Your task to perform on an android device: find which apps use the phone's location Image 0: 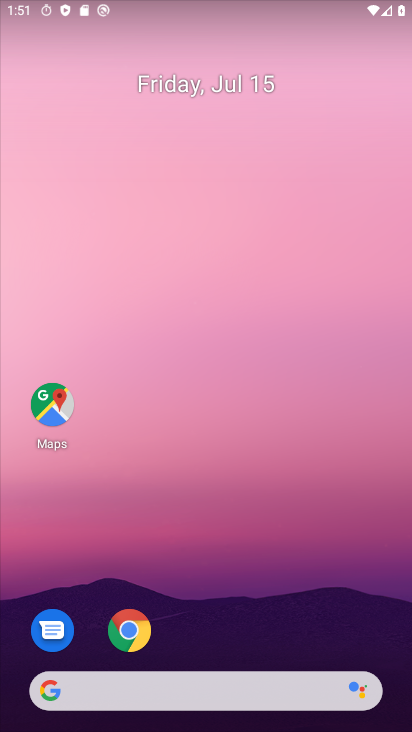
Step 0: drag from (200, 635) to (178, 124)
Your task to perform on an android device: find which apps use the phone's location Image 1: 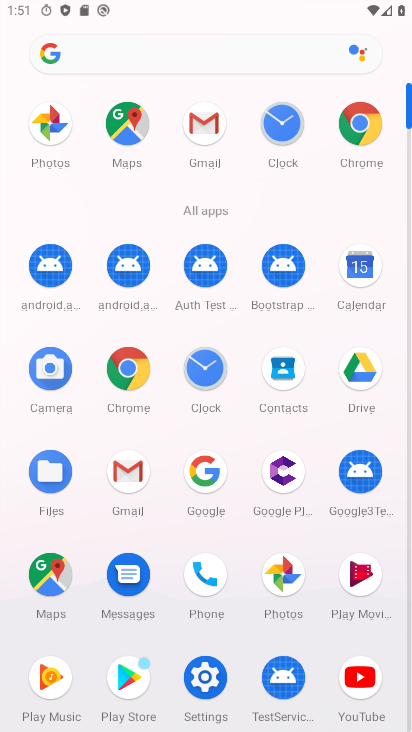
Step 1: click (211, 673)
Your task to perform on an android device: find which apps use the phone's location Image 2: 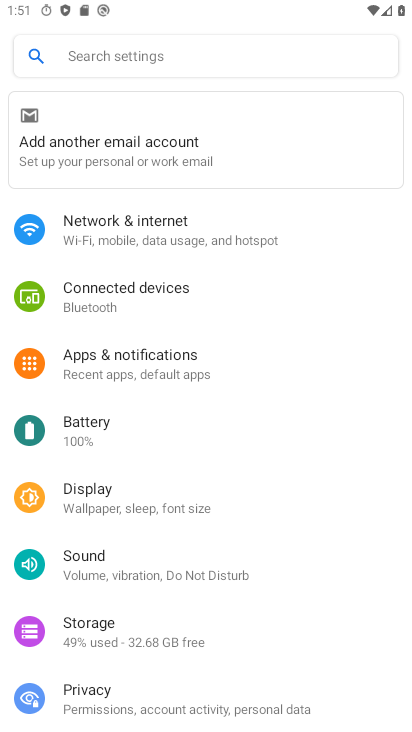
Step 2: drag from (185, 529) to (218, 276)
Your task to perform on an android device: find which apps use the phone's location Image 3: 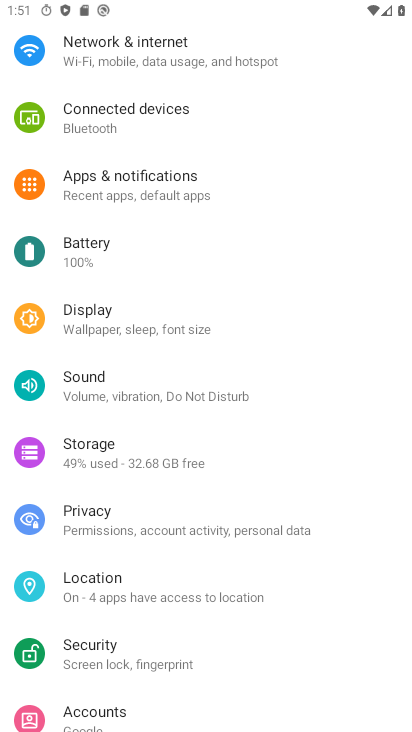
Step 3: click (126, 591)
Your task to perform on an android device: find which apps use the phone's location Image 4: 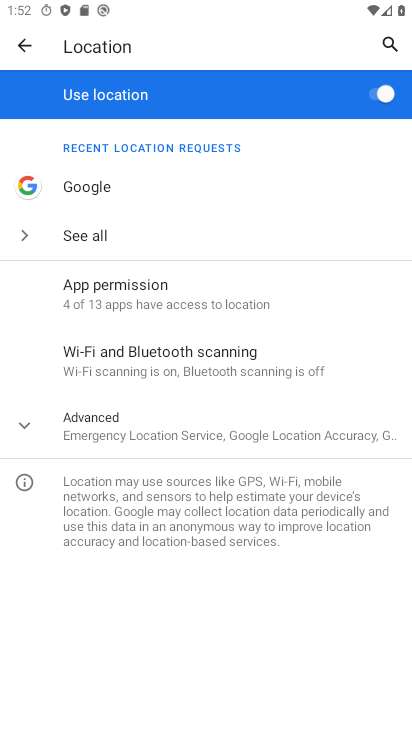
Step 4: click (183, 288)
Your task to perform on an android device: find which apps use the phone's location Image 5: 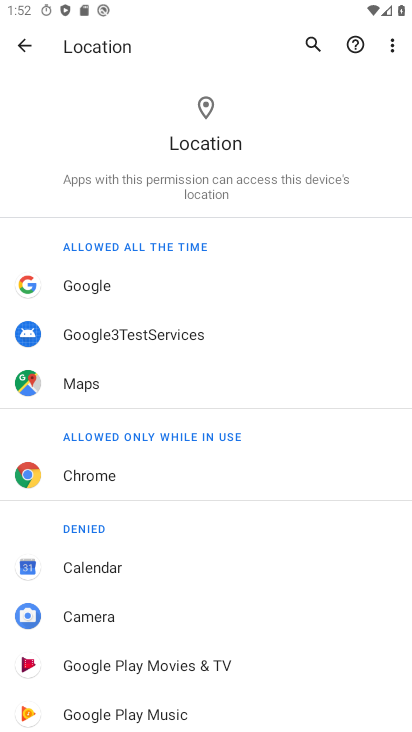
Step 5: task complete